Your task to perform on an android device: install app "Adobe Acrobat Reader: Edit PDF" Image 0: 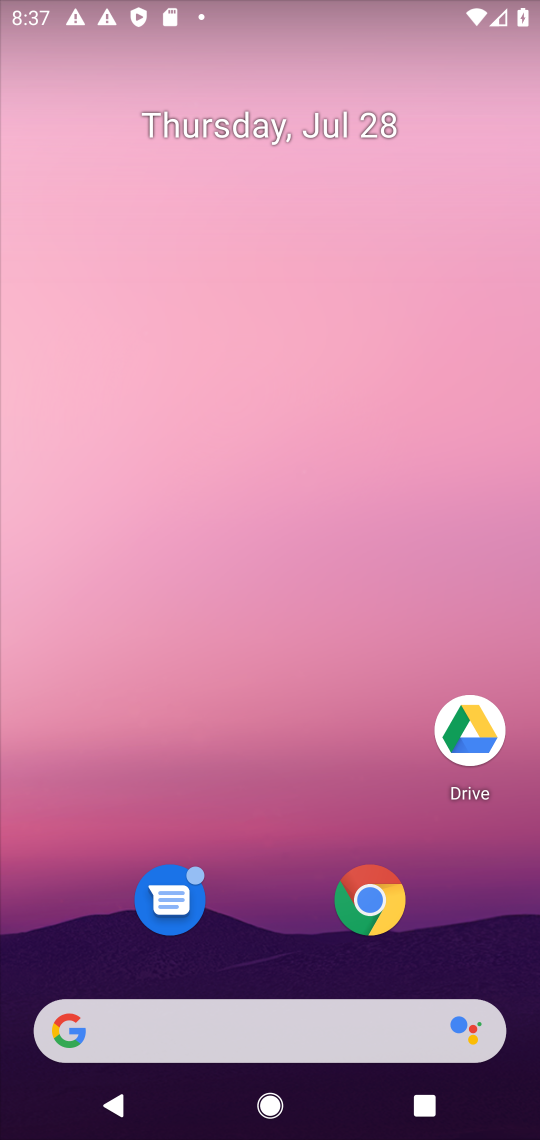
Step 0: drag from (280, 706) to (294, 100)
Your task to perform on an android device: install app "Adobe Acrobat Reader: Edit PDF" Image 1: 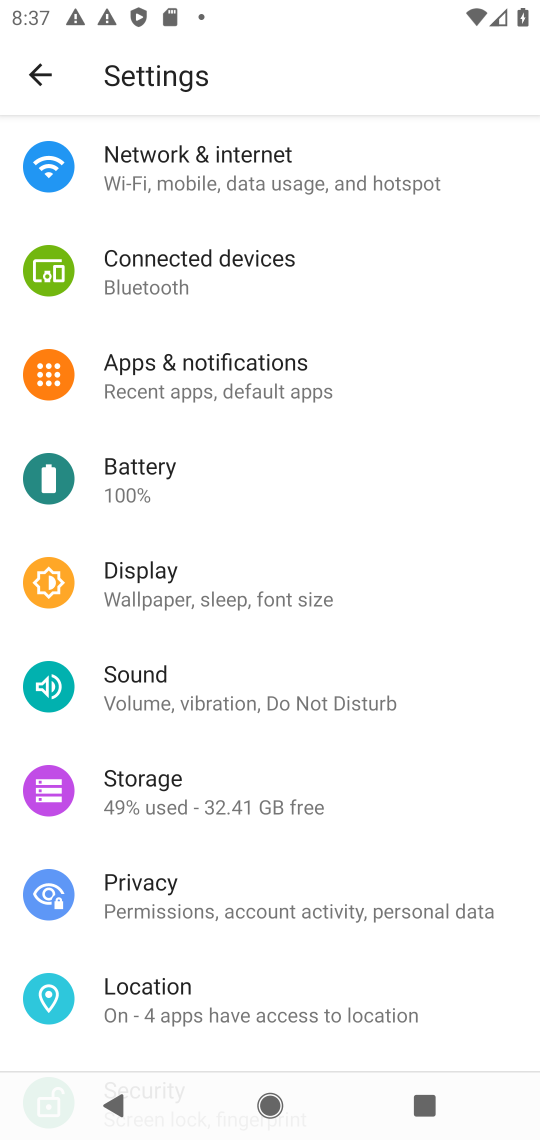
Step 1: press home button
Your task to perform on an android device: install app "Adobe Acrobat Reader: Edit PDF" Image 2: 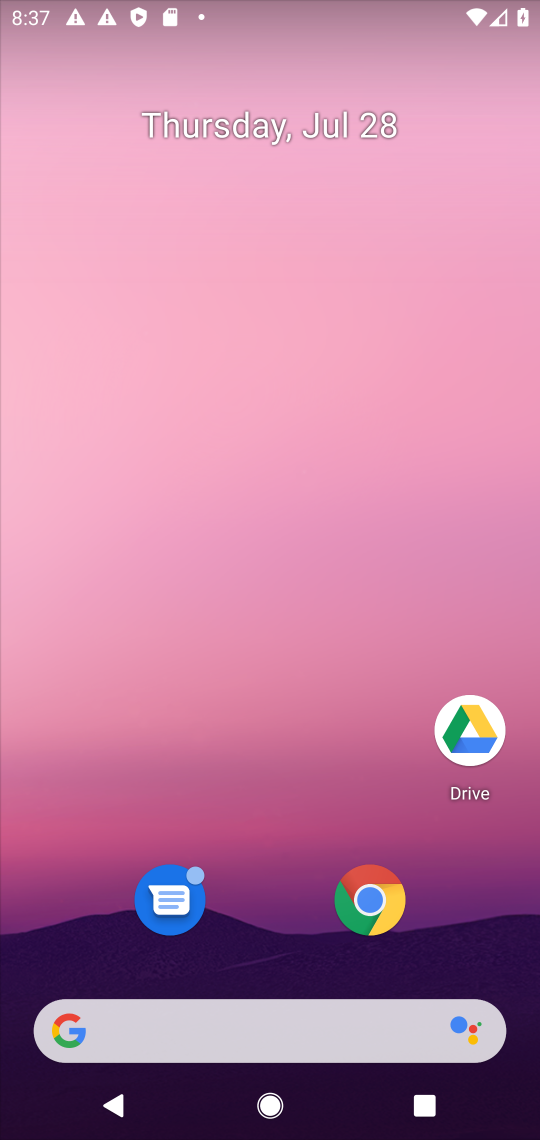
Step 2: drag from (347, 595) to (342, 75)
Your task to perform on an android device: install app "Adobe Acrobat Reader: Edit PDF" Image 3: 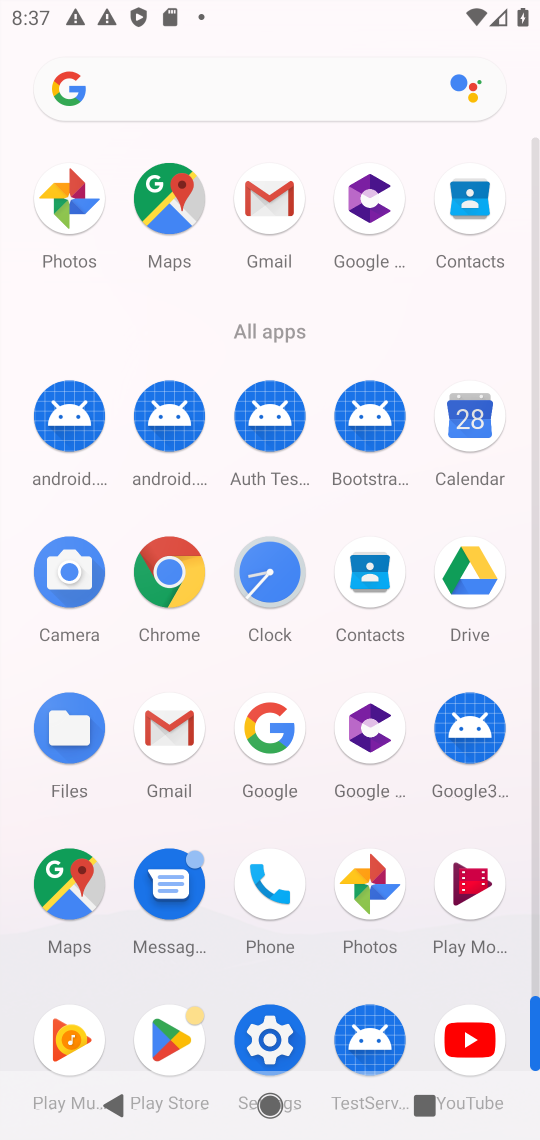
Step 3: click (174, 1028)
Your task to perform on an android device: install app "Adobe Acrobat Reader: Edit PDF" Image 4: 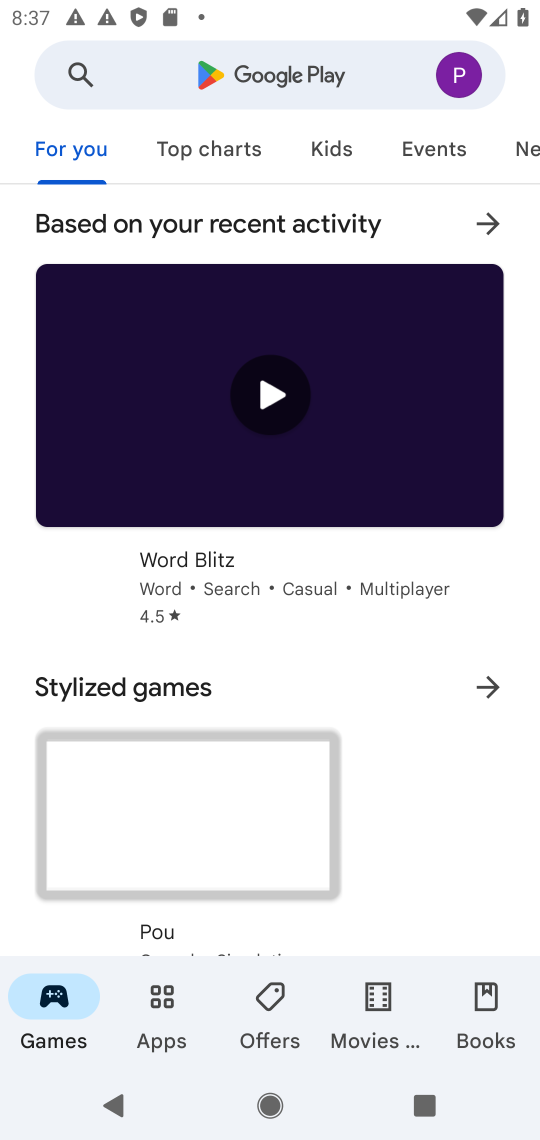
Step 4: click (198, 70)
Your task to perform on an android device: install app "Adobe Acrobat Reader: Edit PDF" Image 5: 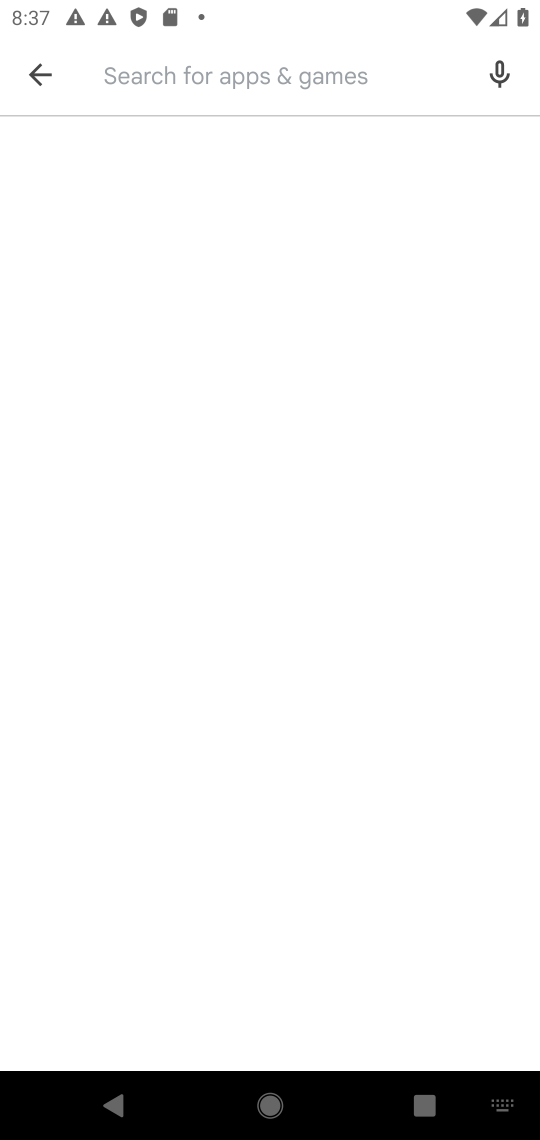
Step 5: type "Adobe Acrobat Reader: Edit PDF"
Your task to perform on an android device: install app "Adobe Acrobat Reader: Edit PDF" Image 6: 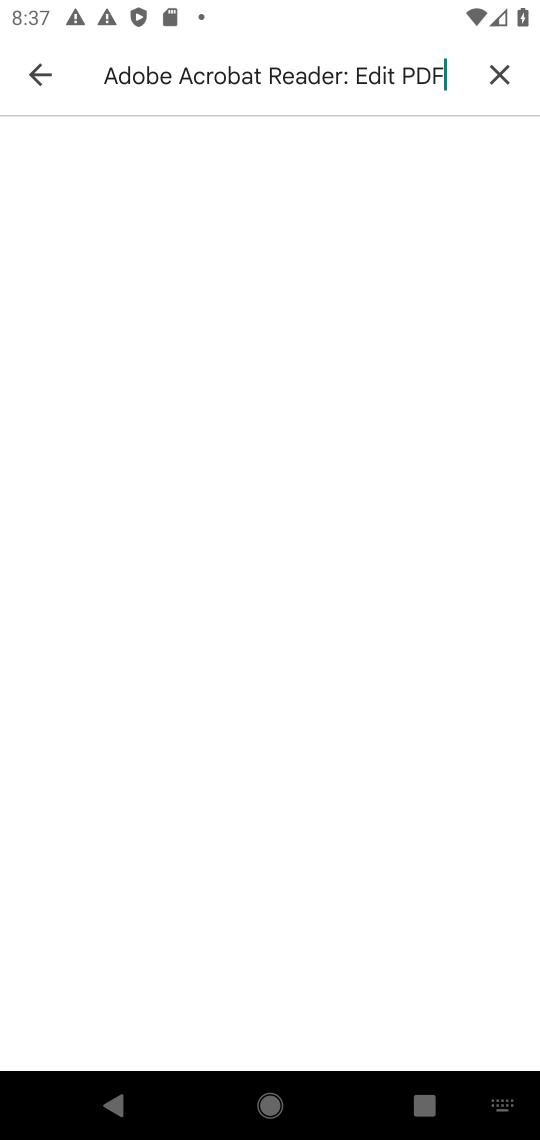
Step 6: press enter
Your task to perform on an android device: install app "Adobe Acrobat Reader: Edit PDF" Image 7: 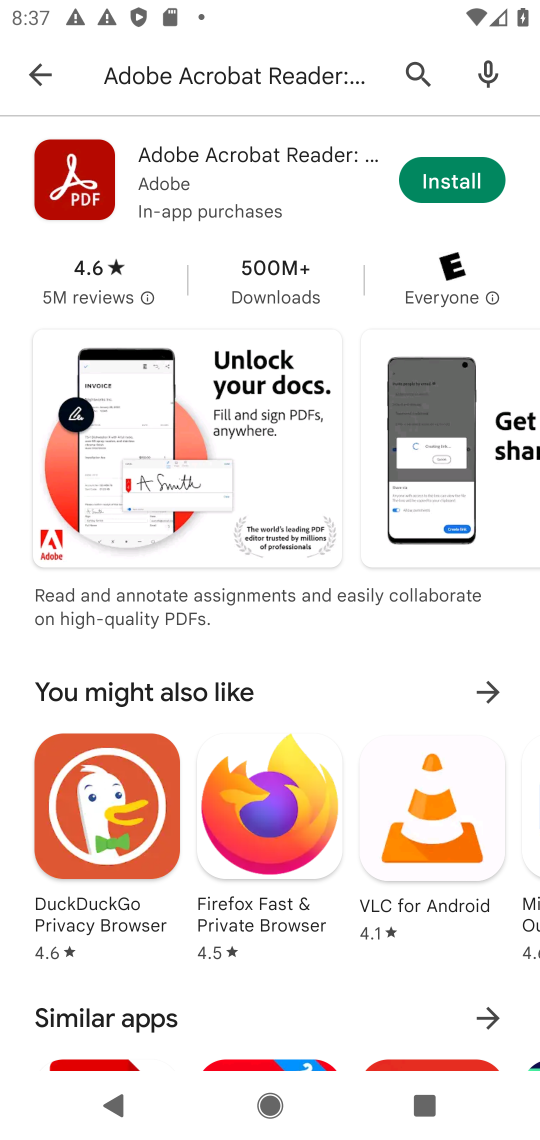
Step 7: click (448, 183)
Your task to perform on an android device: install app "Adobe Acrobat Reader: Edit PDF" Image 8: 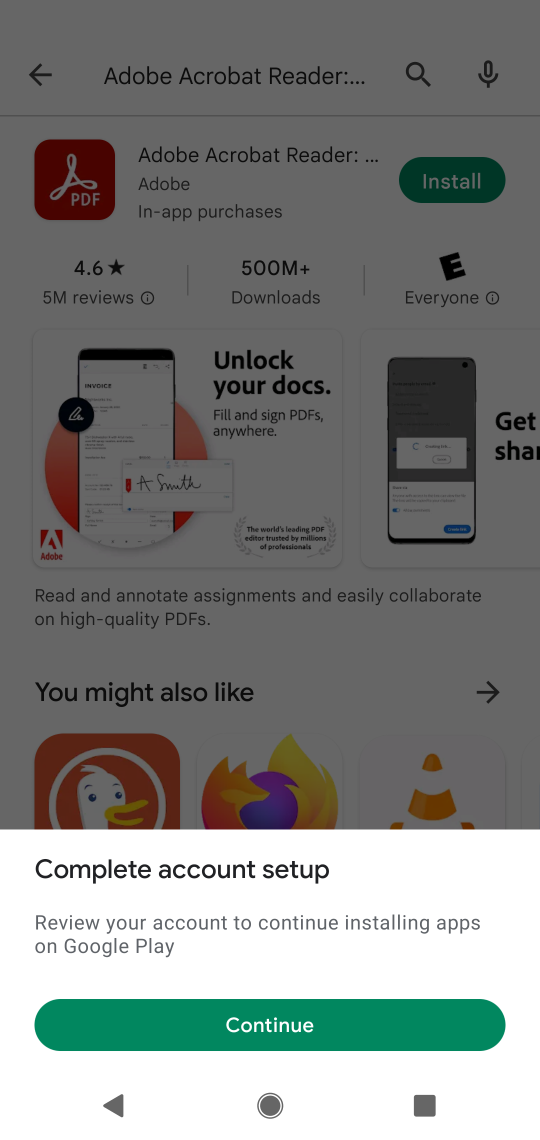
Step 8: click (272, 1036)
Your task to perform on an android device: install app "Adobe Acrobat Reader: Edit PDF" Image 9: 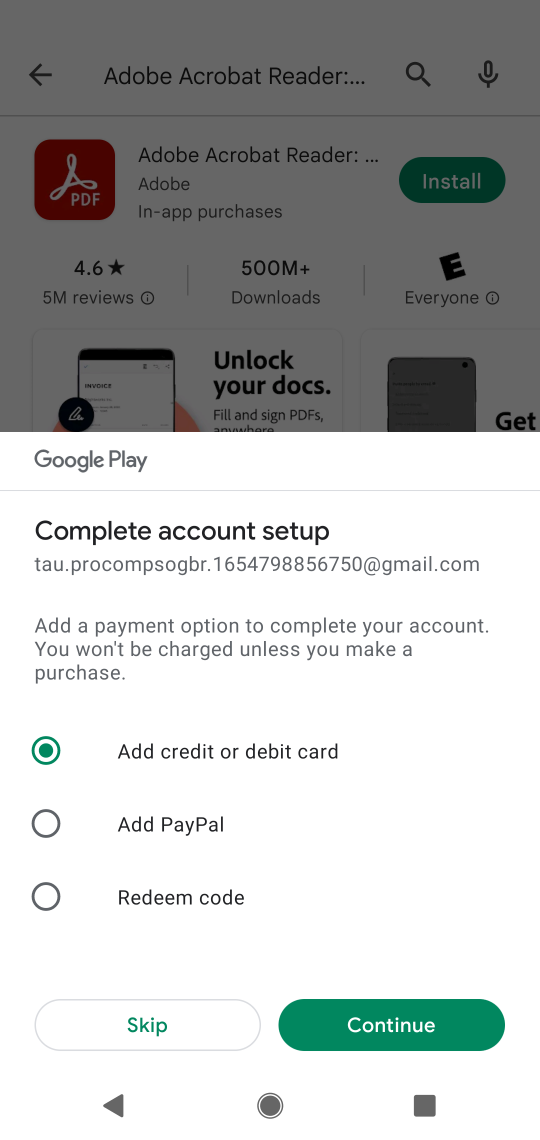
Step 9: click (187, 1031)
Your task to perform on an android device: install app "Adobe Acrobat Reader: Edit PDF" Image 10: 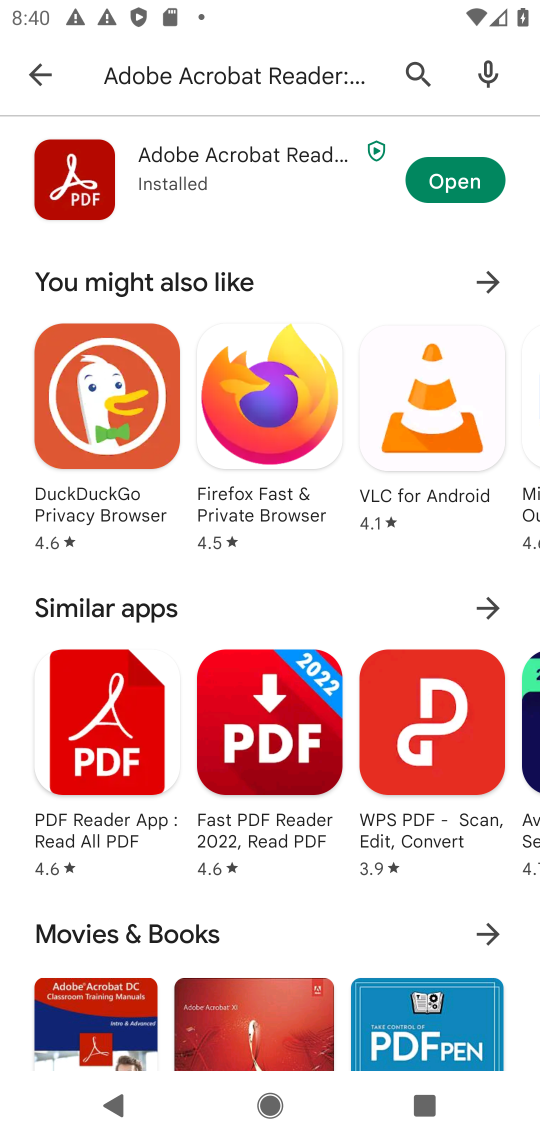
Step 10: task complete